Your task to perform on an android device: find which apps use the phone's location Image 0: 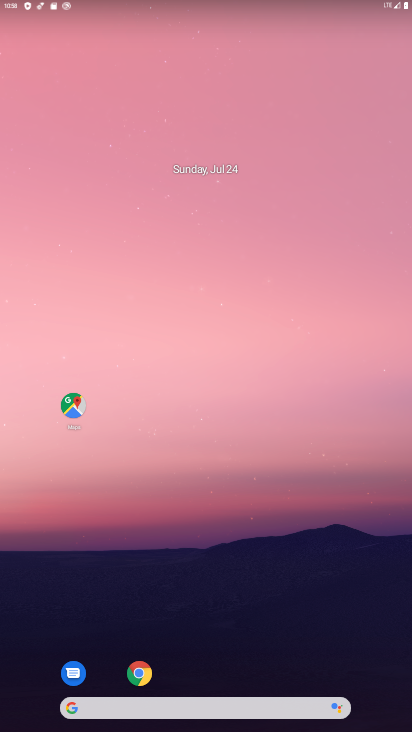
Step 0: drag from (240, 574) to (320, 22)
Your task to perform on an android device: find which apps use the phone's location Image 1: 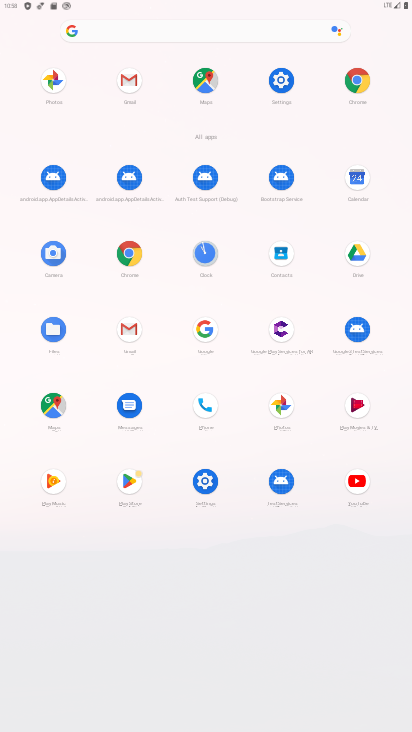
Step 1: click (291, 80)
Your task to perform on an android device: find which apps use the phone's location Image 2: 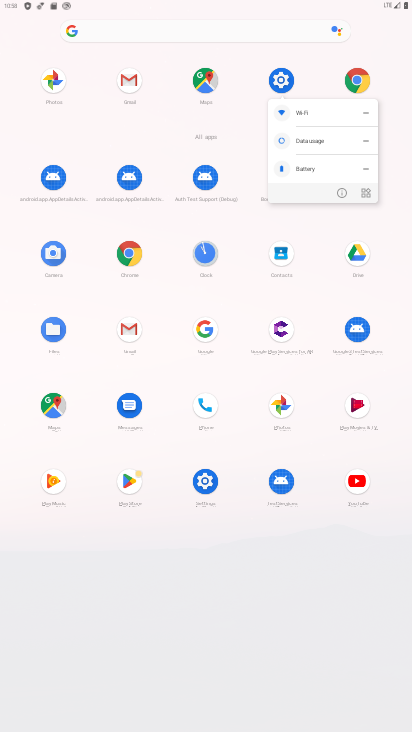
Step 2: click (291, 79)
Your task to perform on an android device: find which apps use the phone's location Image 3: 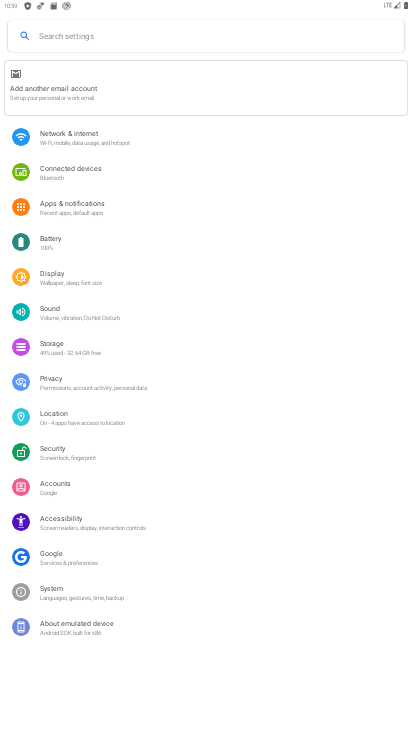
Step 3: click (72, 215)
Your task to perform on an android device: find which apps use the phone's location Image 4: 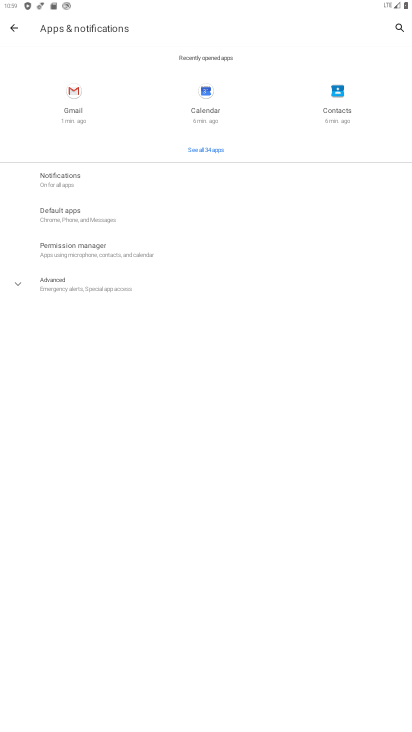
Step 4: click (70, 252)
Your task to perform on an android device: find which apps use the phone's location Image 5: 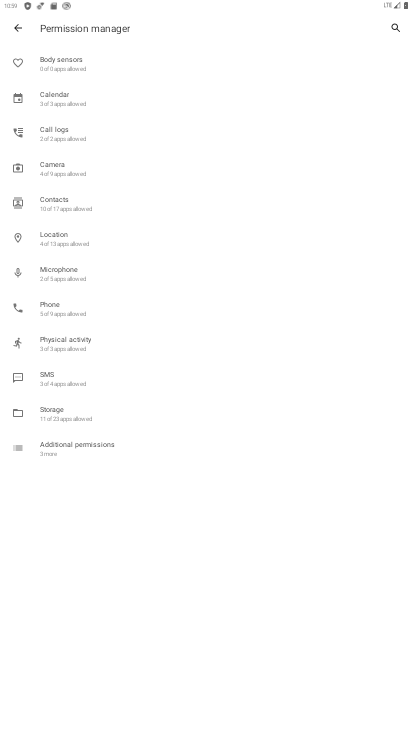
Step 5: task complete